Your task to perform on an android device: set the stopwatch Image 0: 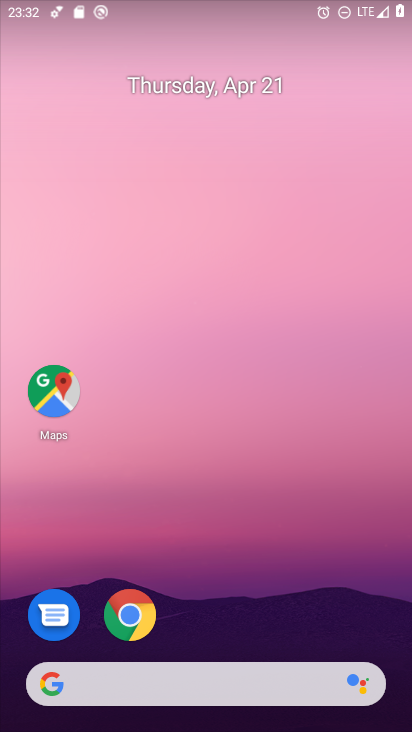
Step 0: press home button
Your task to perform on an android device: set the stopwatch Image 1: 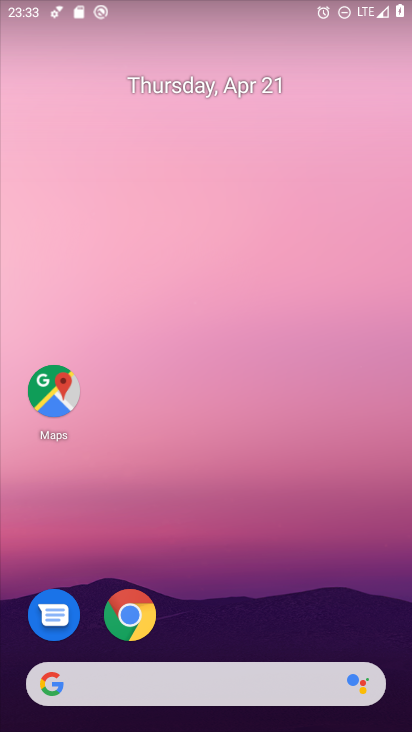
Step 1: drag from (228, 638) to (221, 75)
Your task to perform on an android device: set the stopwatch Image 2: 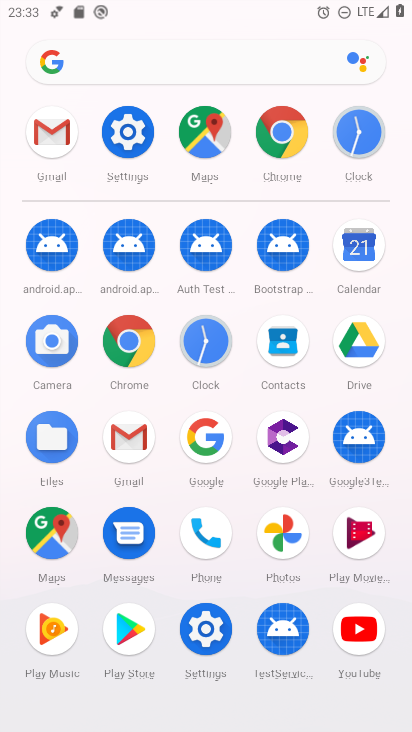
Step 2: click (204, 334)
Your task to perform on an android device: set the stopwatch Image 3: 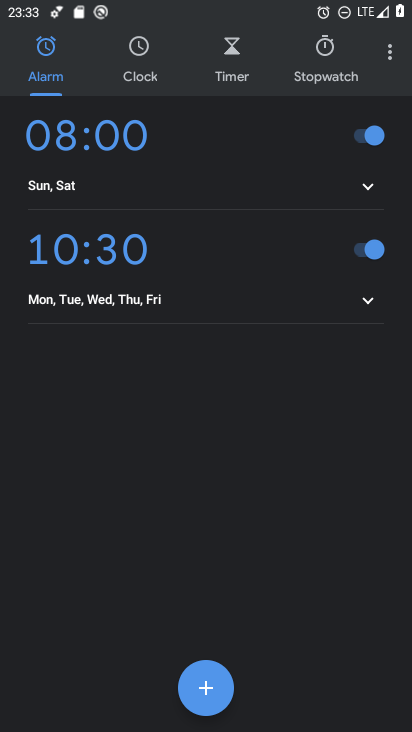
Step 3: click (323, 44)
Your task to perform on an android device: set the stopwatch Image 4: 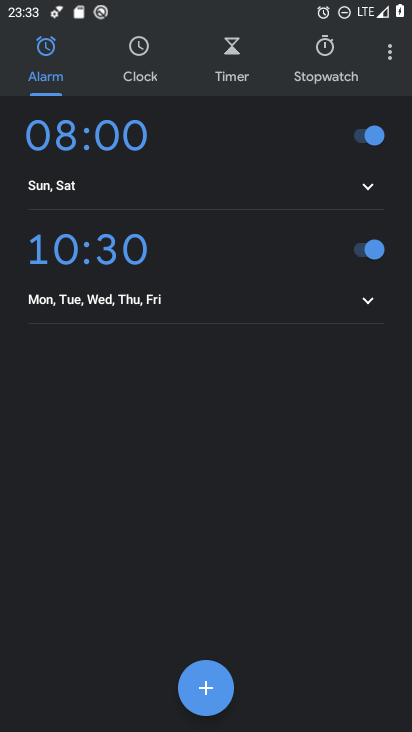
Step 4: click (321, 54)
Your task to perform on an android device: set the stopwatch Image 5: 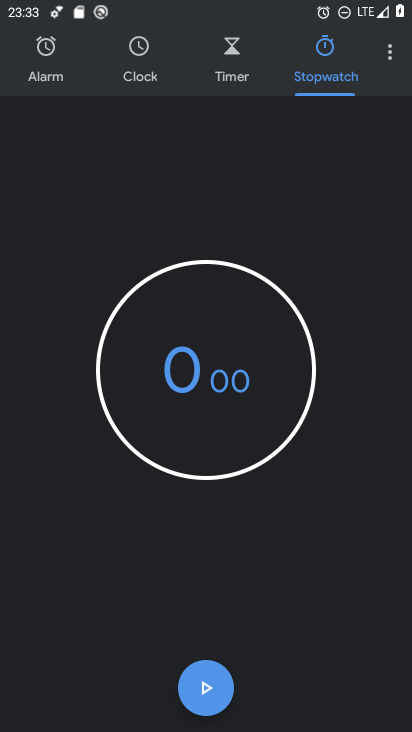
Step 5: click (206, 681)
Your task to perform on an android device: set the stopwatch Image 6: 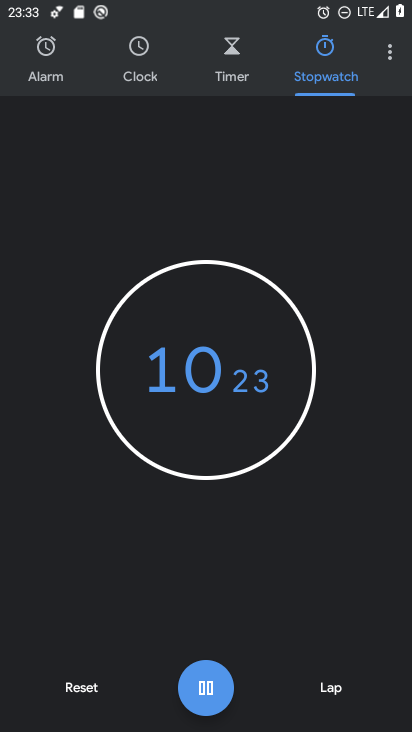
Step 6: click (86, 682)
Your task to perform on an android device: set the stopwatch Image 7: 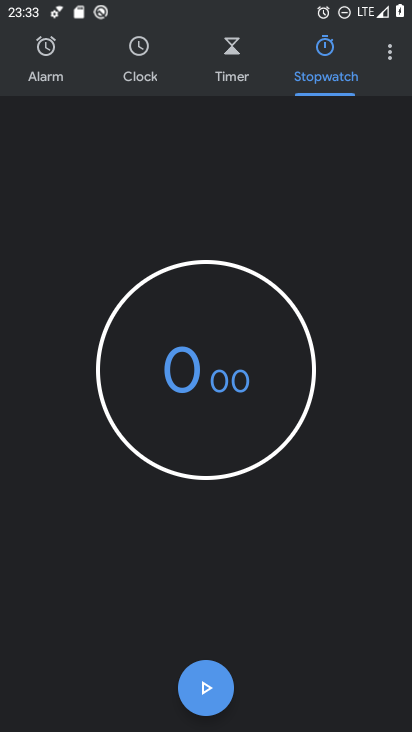
Step 7: task complete